Your task to perform on an android device: turn on showing notifications on the lock screen Image 0: 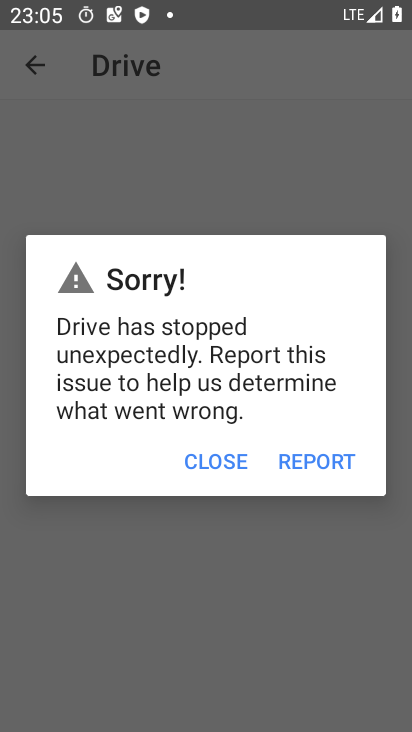
Step 0: press home button
Your task to perform on an android device: turn on showing notifications on the lock screen Image 1: 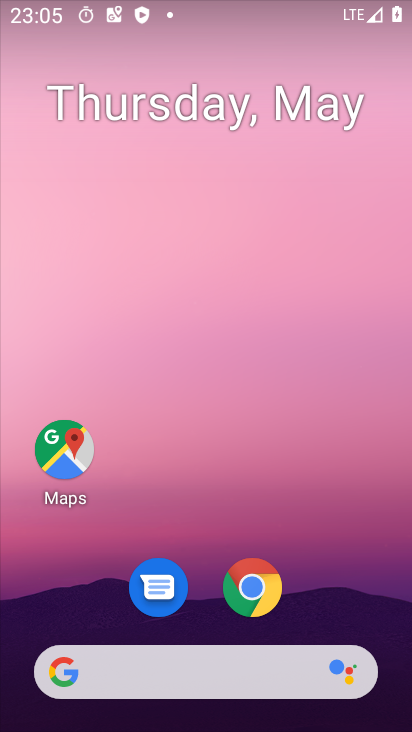
Step 1: drag from (378, 635) to (359, 14)
Your task to perform on an android device: turn on showing notifications on the lock screen Image 2: 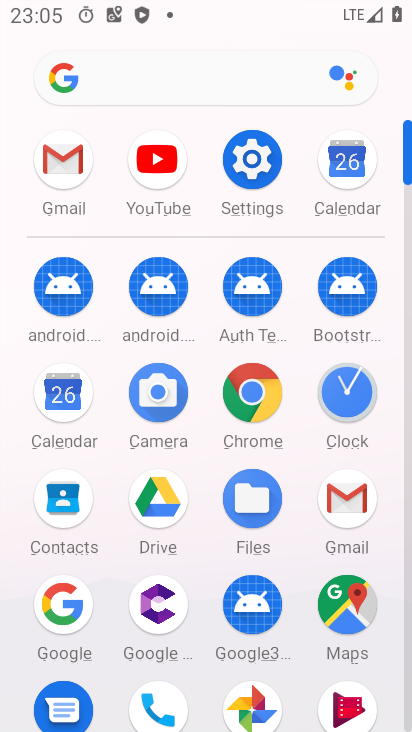
Step 2: click (250, 161)
Your task to perform on an android device: turn on showing notifications on the lock screen Image 3: 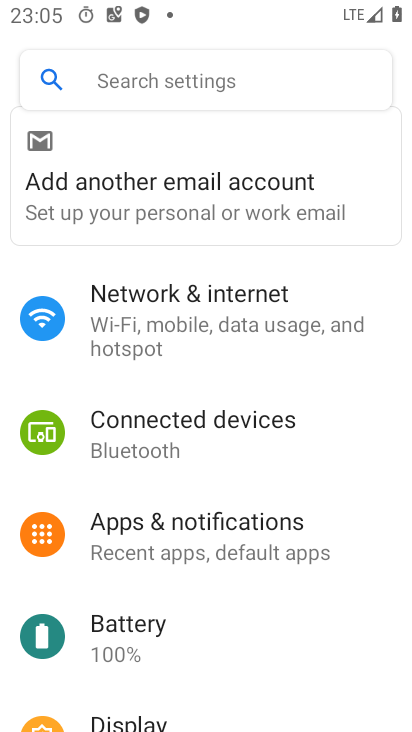
Step 3: click (160, 547)
Your task to perform on an android device: turn on showing notifications on the lock screen Image 4: 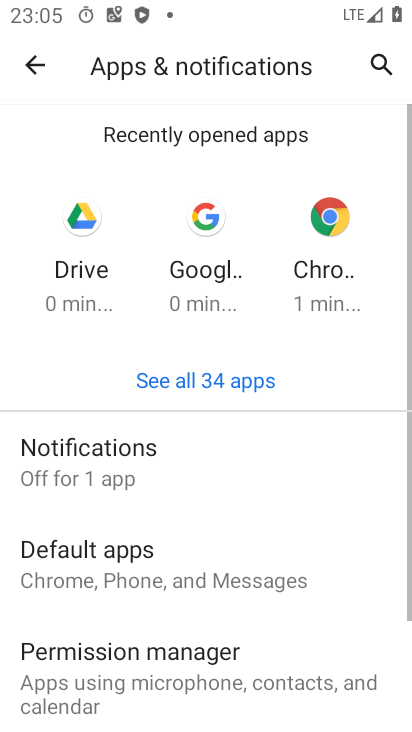
Step 4: click (105, 472)
Your task to perform on an android device: turn on showing notifications on the lock screen Image 5: 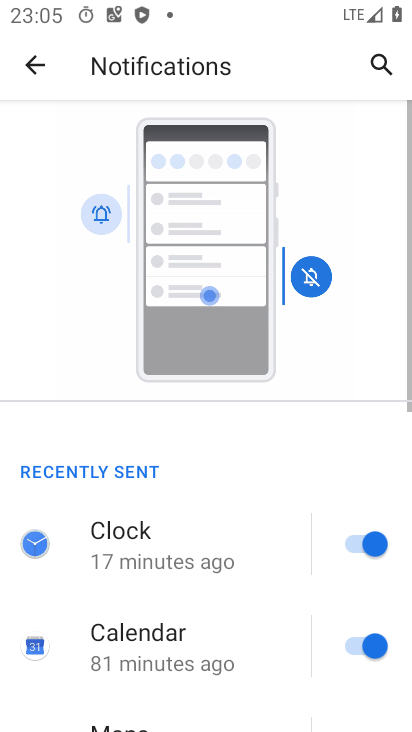
Step 5: drag from (228, 631) to (187, 4)
Your task to perform on an android device: turn on showing notifications on the lock screen Image 6: 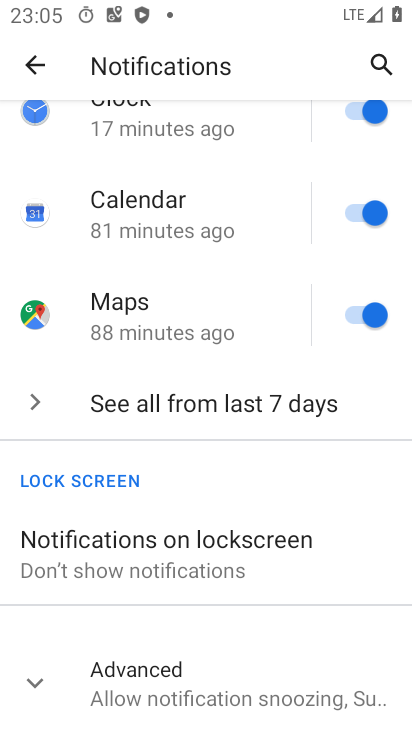
Step 6: click (142, 559)
Your task to perform on an android device: turn on showing notifications on the lock screen Image 7: 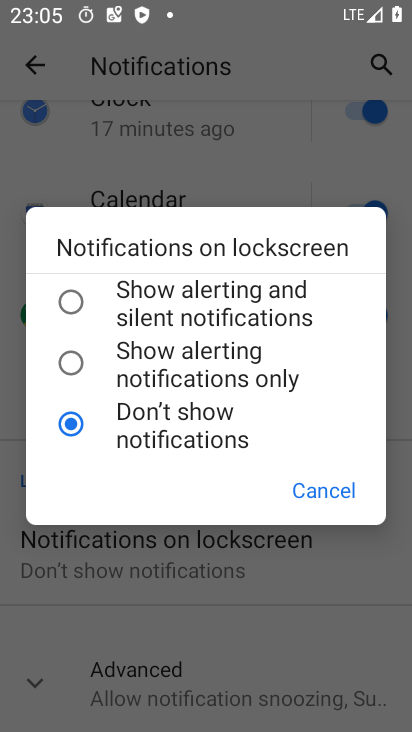
Step 7: click (79, 301)
Your task to perform on an android device: turn on showing notifications on the lock screen Image 8: 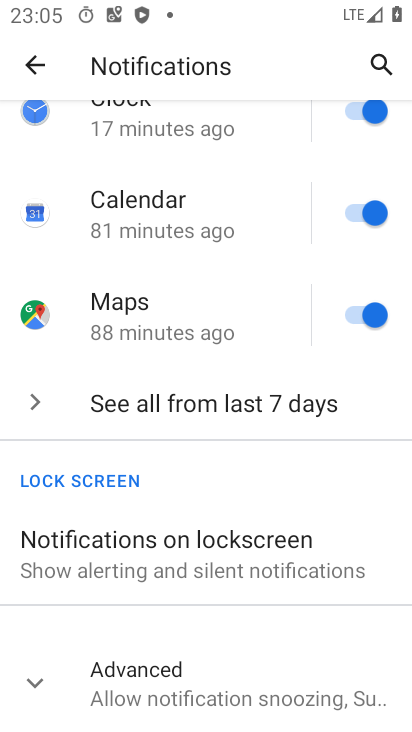
Step 8: task complete